Your task to perform on an android device: Open maps Image 0: 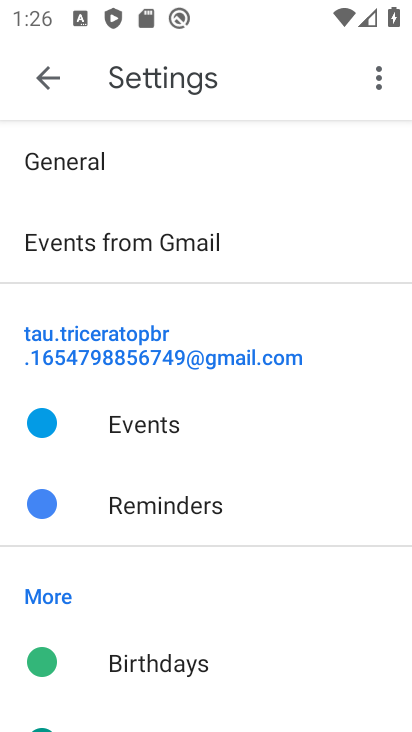
Step 0: press home button
Your task to perform on an android device: Open maps Image 1: 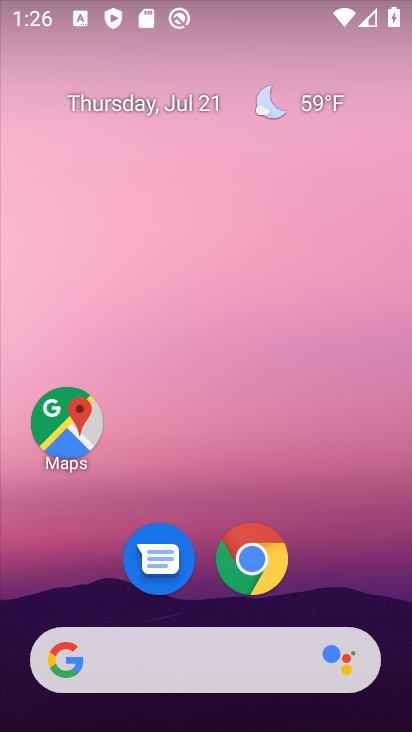
Step 1: drag from (243, 633) to (200, 15)
Your task to perform on an android device: Open maps Image 2: 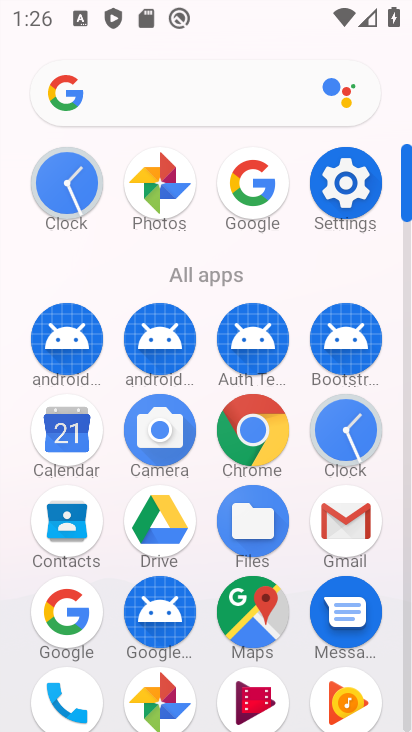
Step 2: click (250, 587)
Your task to perform on an android device: Open maps Image 3: 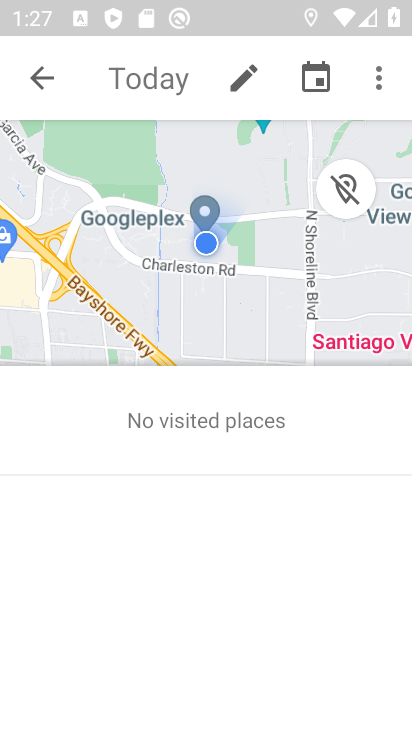
Step 3: task complete